Your task to perform on an android device: Open sound settings Image 0: 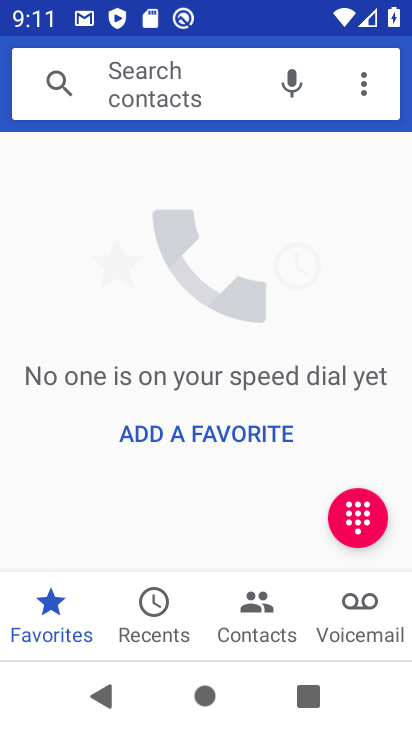
Step 0: press back button
Your task to perform on an android device: Open sound settings Image 1: 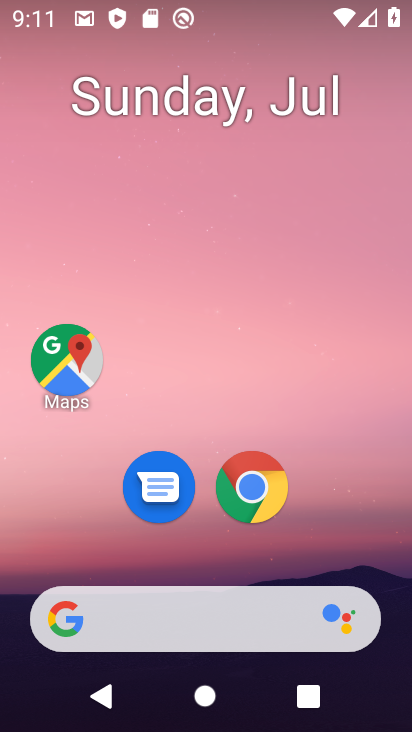
Step 1: drag from (196, 539) to (252, 7)
Your task to perform on an android device: Open sound settings Image 2: 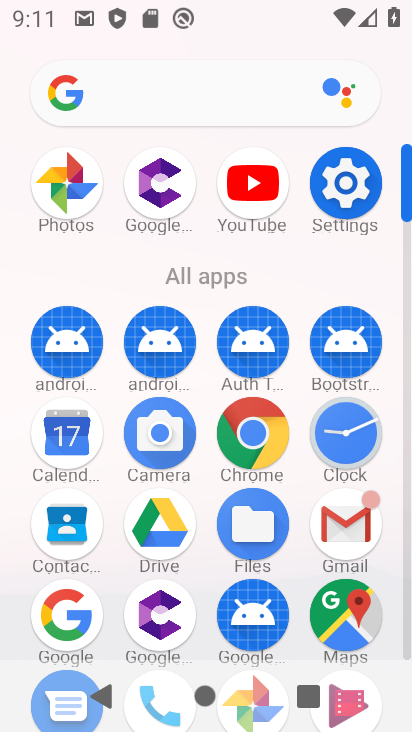
Step 2: click (367, 216)
Your task to perform on an android device: Open sound settings Image 3: 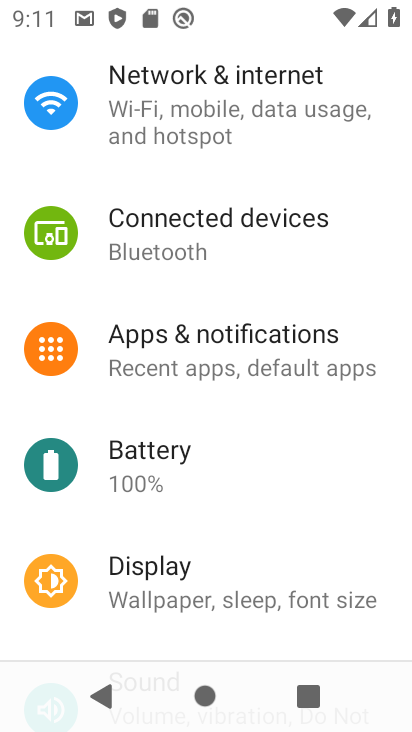
Step 3: drag from (149, 584) to (224, 138)
Your task to perform on an android device: Open sound settings Image 4: 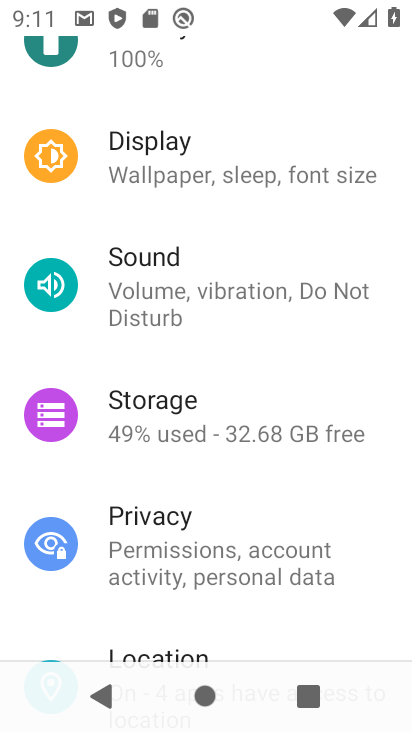
Step 4: click (184, 256)
Your task to perform on an android device: Open sound settings Image 5: 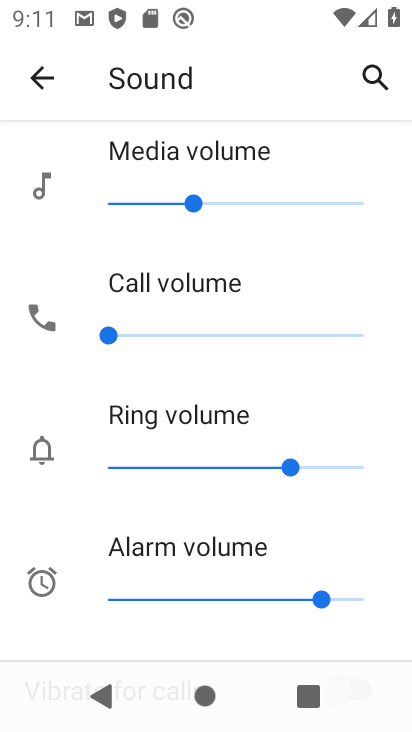
Step 5: task complete